Your task to perform on an android device: Open calendar and show me the first week of next month Image 0: 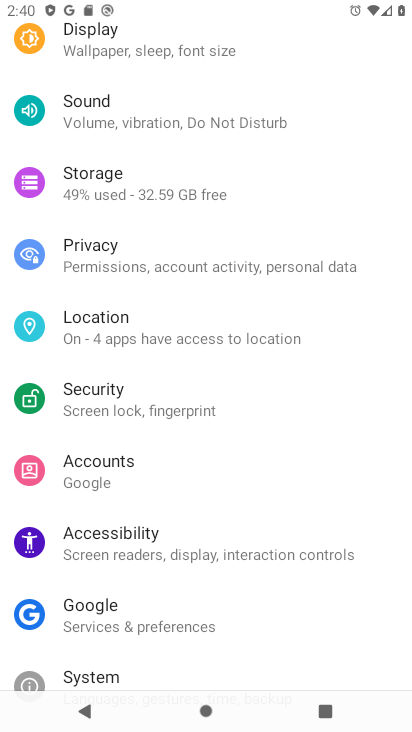
Step 0: press home button
Your task to perform on an android device: Open calendar and show me the first week of next month Image 1: 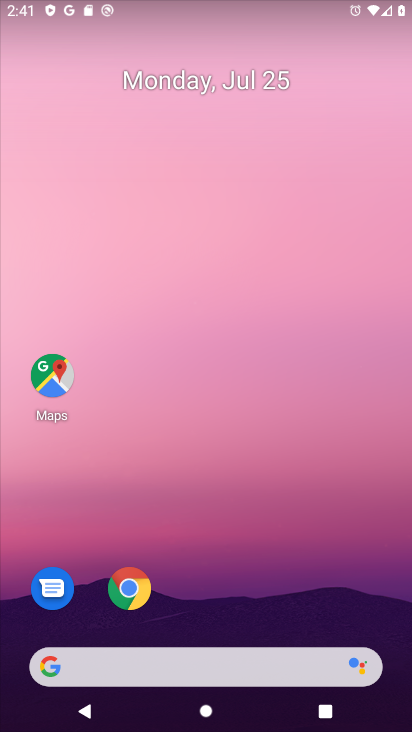
Step 1: drag from (204, 626) to (191, 23)
Your task to perform on an android device: Open calendar and show me the first week of next month Image 2: 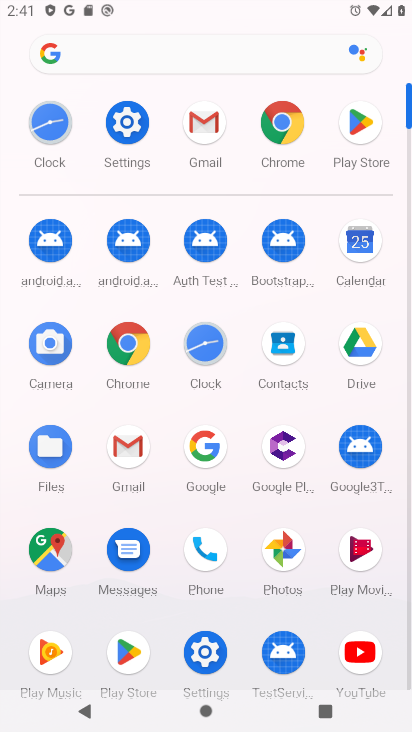
Step 2: click (360, 237)
Your task to perform on an android device: Open calendar and show me the first week of next month Image 3: 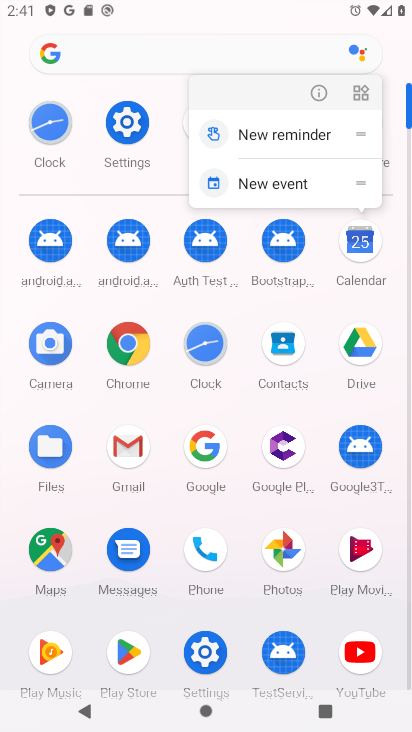
Step 3: click (356, 239)
Your task to perform on an android device: Open calendar and show me the first week of next month Image 4: 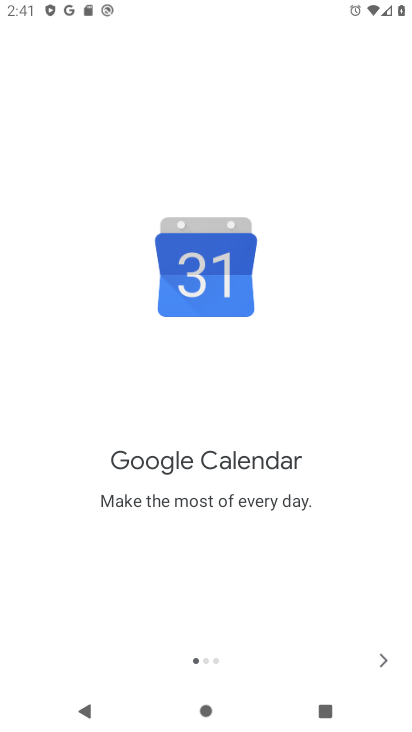
Step 4: click (381, 653)
Your task to perform on an android device: Open calendar and show me the first week of next month Image 5: 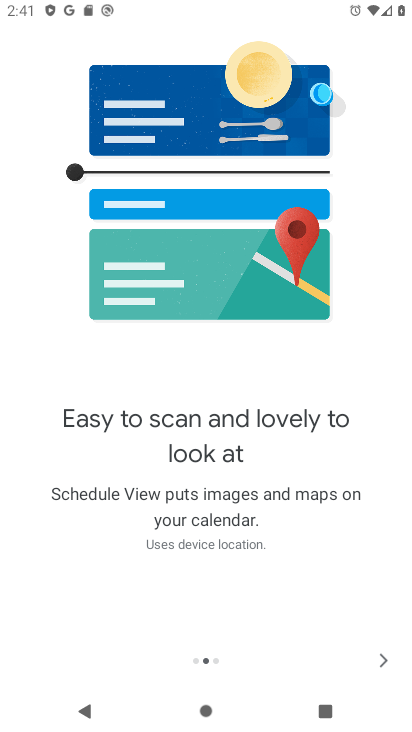
Step 5: click (380, 657)
Your task to perform on an android device: Open calendar and show me the first week of next month Image 6: 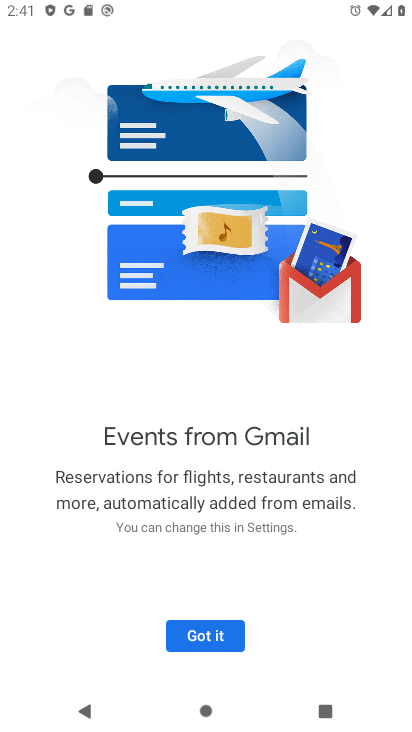
Step 6: click (203, 632)
Your task to perform on an android device: Open calendar and show me the first week of next month Image 7: 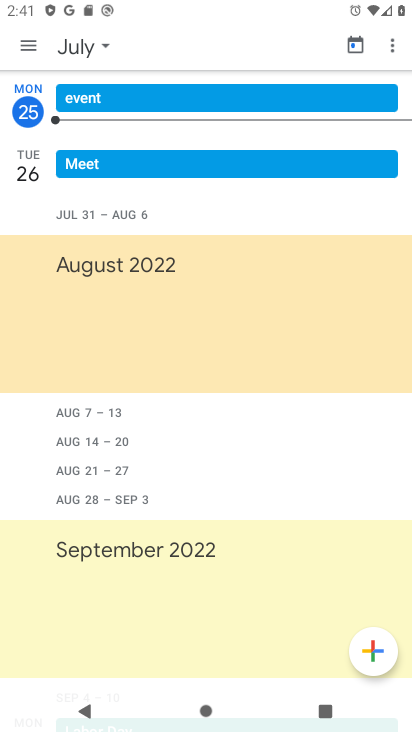
Step 7: click (25, 39)
Your task to perform on an android device: Open calendar and show me the first week of next month Image 8: 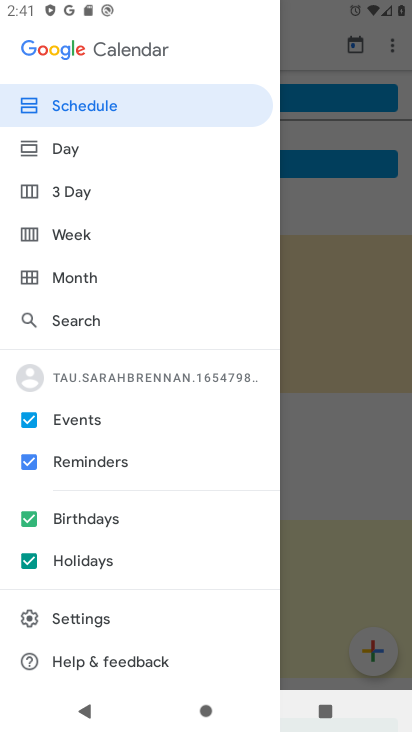
Step 8: click (48, 231)
Your task to perform on an android device: Open calendar and show me the first week of next month Image 9: 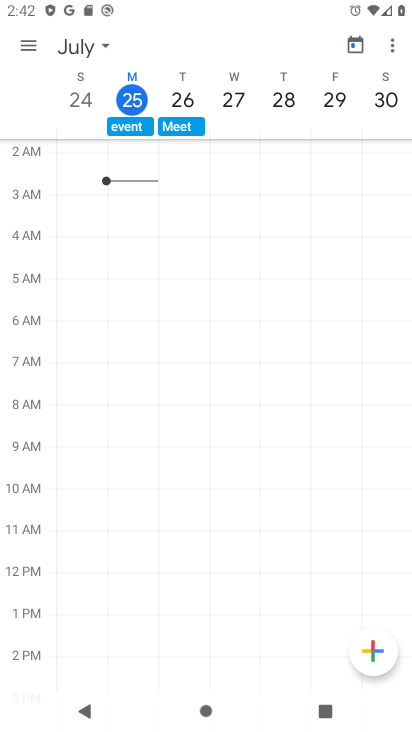
Step 9: drag from (378, 94) to (17, 113)
Your task to perform on an android device: Open calendar and show me the first week of next month Image 10: 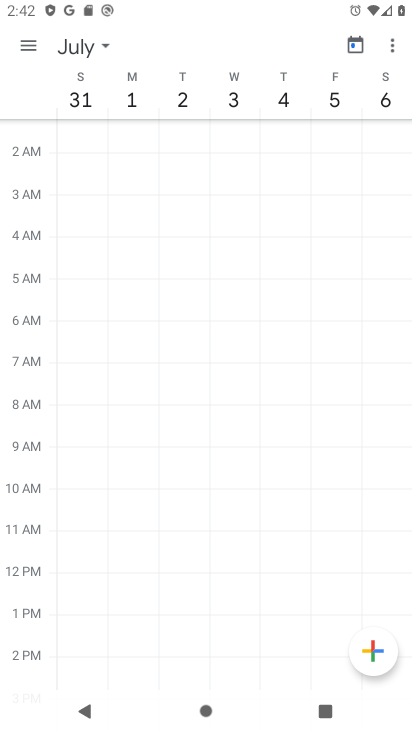
Step 10: click (130, 100)
Your task to perform on an android device: Open calendar and show me the first week of next month Image 11: 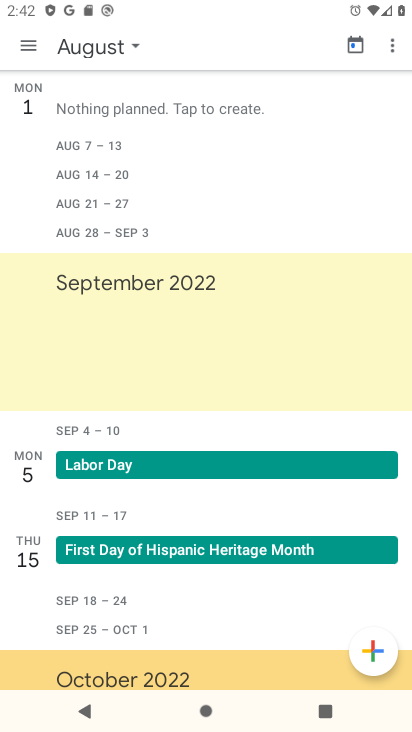
Step 11: task complete